Your task to perform on an android device: allow notifications from all sites in the chrome app Image 0: 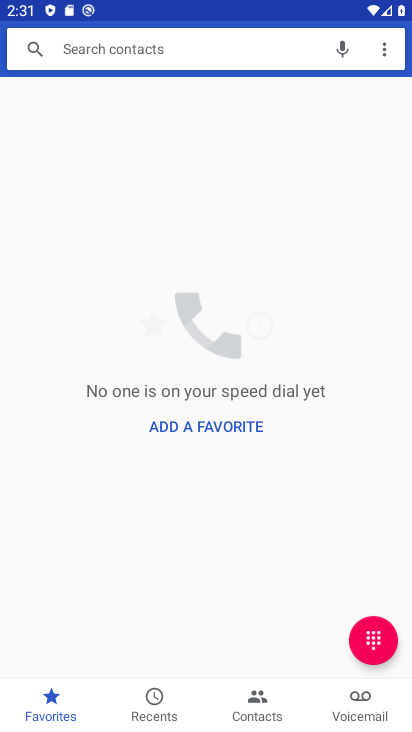
Step 0: press home button
Your task to perform on an android device: allow notifications from all sites in the chrome app Image 1: 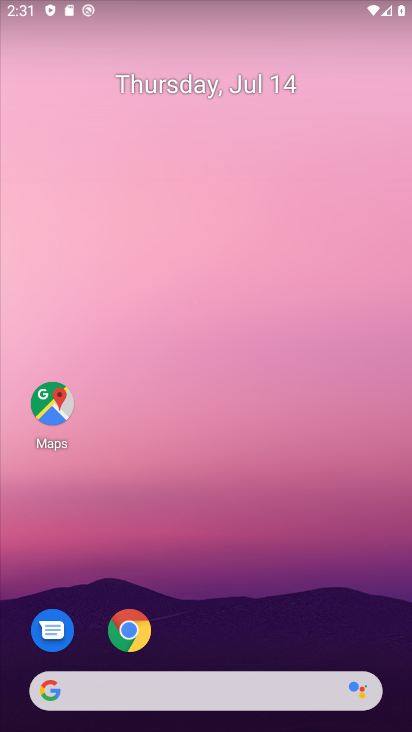
Step 1: click (129, 629)
Your task to perform on an android device: allow notifications from all sites in the chrome app Image 2: 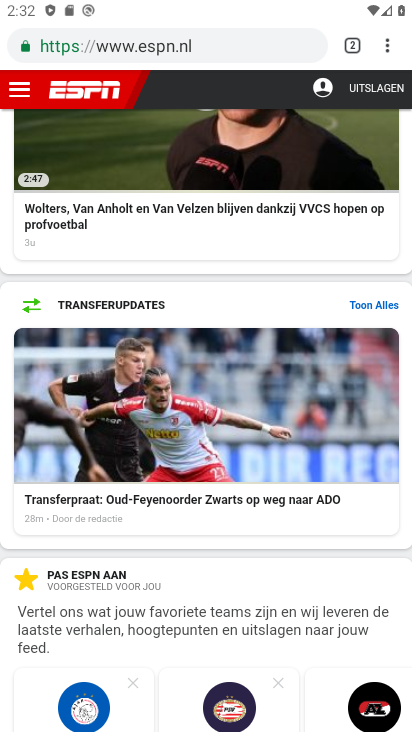
Step 2: click (389, 48)
Your task to perform on an android device: allow notifications from all sites in the chrome app Image 3: 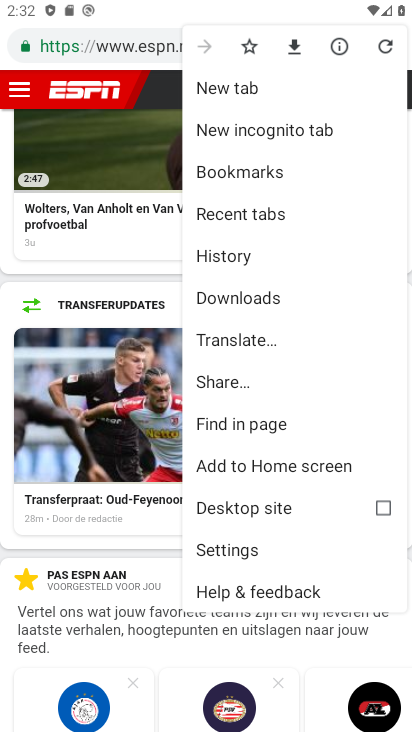
Step 3: click (251, 539)
Your task to perform on an android device: allow notifications from all sites in the chrome app Image 4: 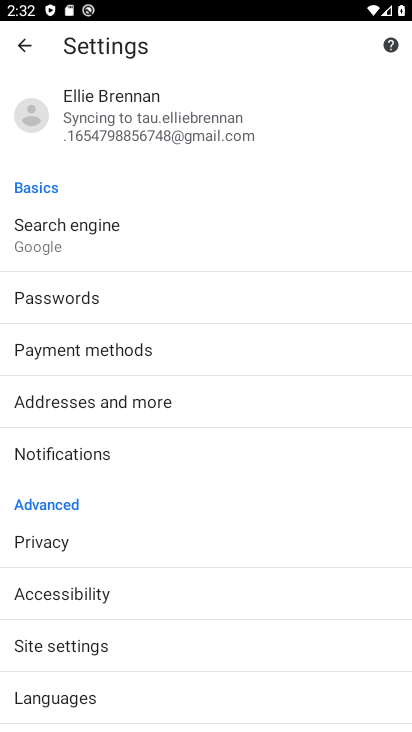
Step 4: click (121, 634)
Your task to perform on an android device: allow notifications from all sites in the chrome app Image 5: 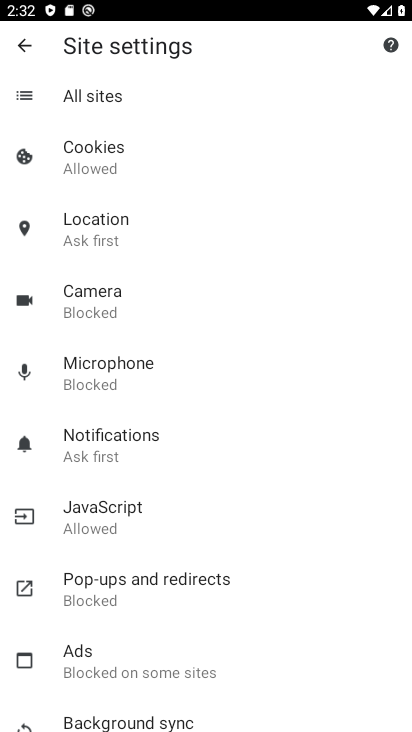
Step 5: click (112, 96)
Your task to perform on an android device: allow notifications from all sites in the chrome app Image 6: 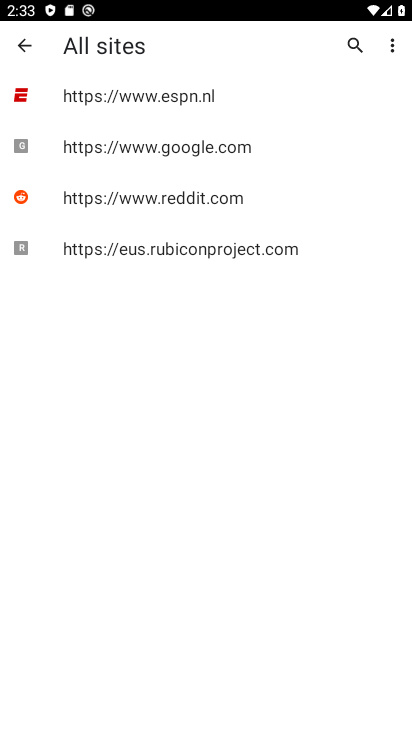
Step 6: click (206, 89)
Your task to perform on an android device: allow notifications from all sites in the chrome app Image 7: 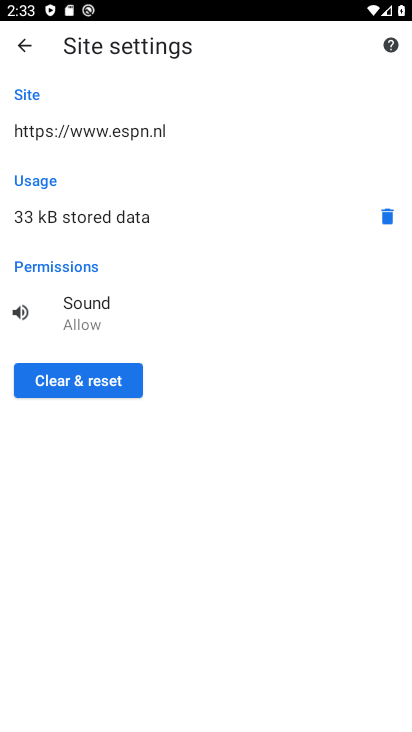
Step 7: task complete